Your task to perform on an android device: turn on the 12-hour format for clock Image 0: 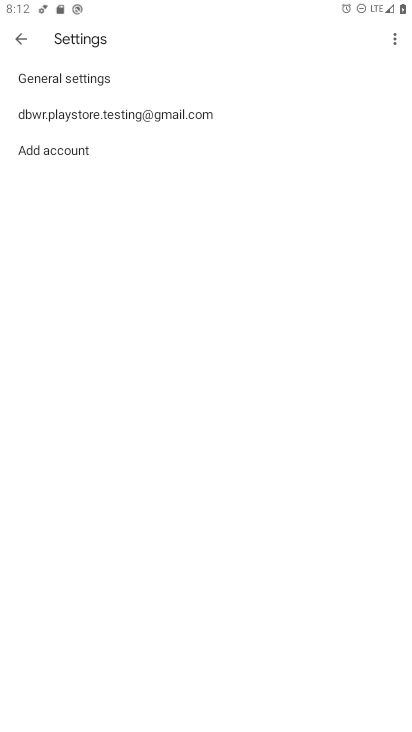
Step 0: press home button
Your task to perform on an android device: turn on the 12-hour format for clock Image 1: 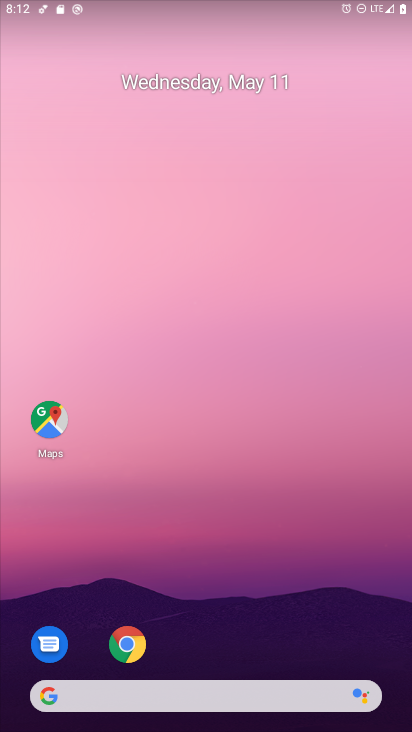
Step 1: drag from (178, 543) to (147, 74)
Your task to perform on an android device: turn on the 12-hour format for clock Image 2: 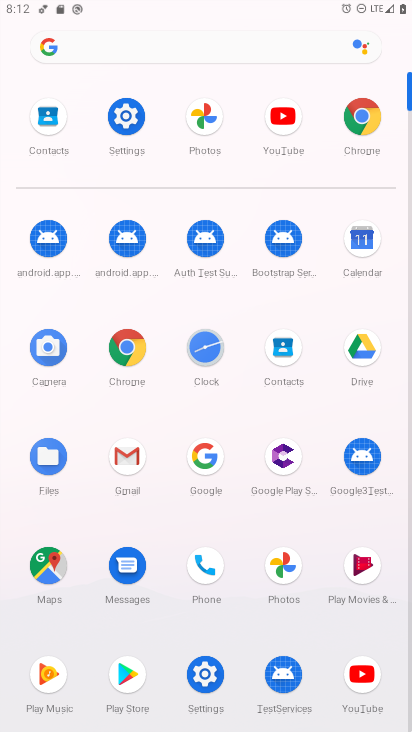
Step 2: click (209, 351)
Your task to perform on an android device: turn on the 12-hour format for clock Image 3: 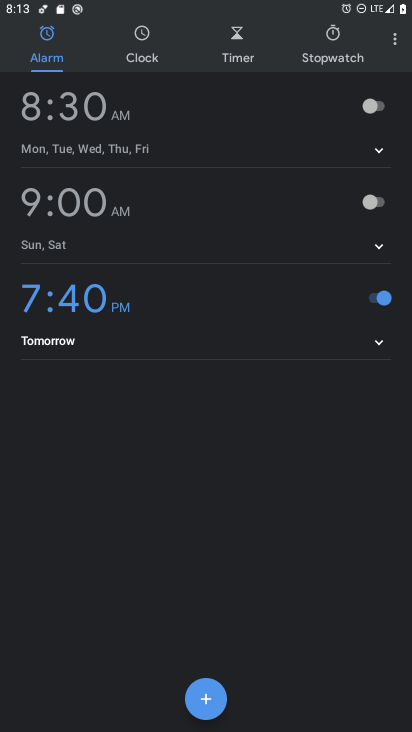
Step 3: click (393, 38)
Your task to perform on an android device: turn on the 12-hour format for clock Image 4: 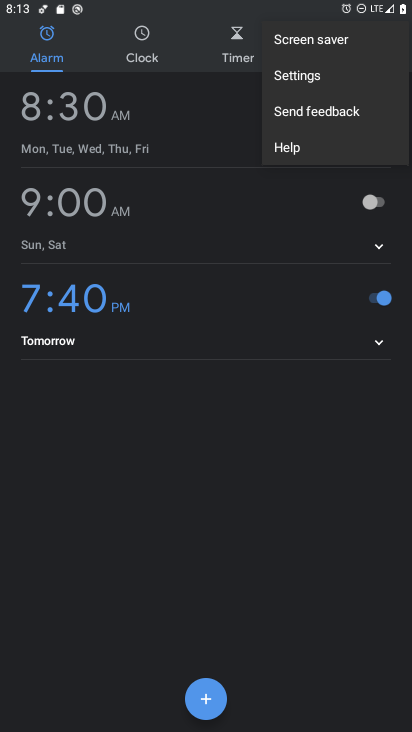
Step 4: click (312, 79)
Your task to perform on an android device: turn on the 12-hour format for clock Image 5: 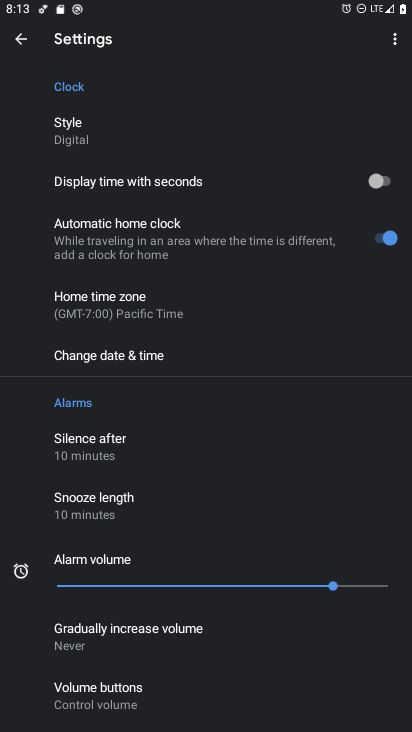
Step 5: drag from (233, 527) to (233, 436)
Your task to perform on an android device: turn on the 12-hour format for clock Image 6: 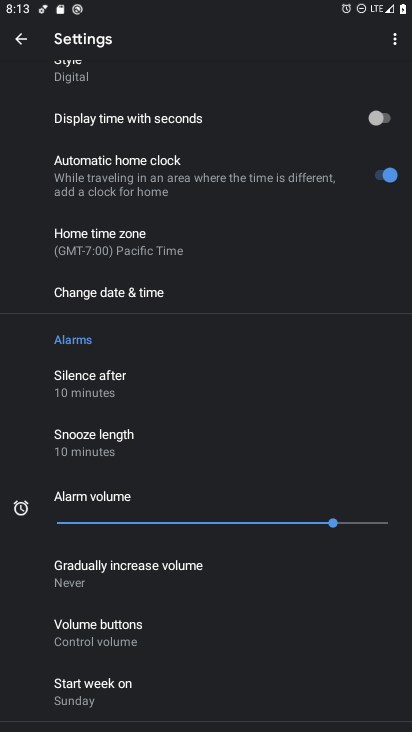
Step 6: click (133, 289)
Your task to perform on an android device: turn on the 12-hour format for clock Image 7: 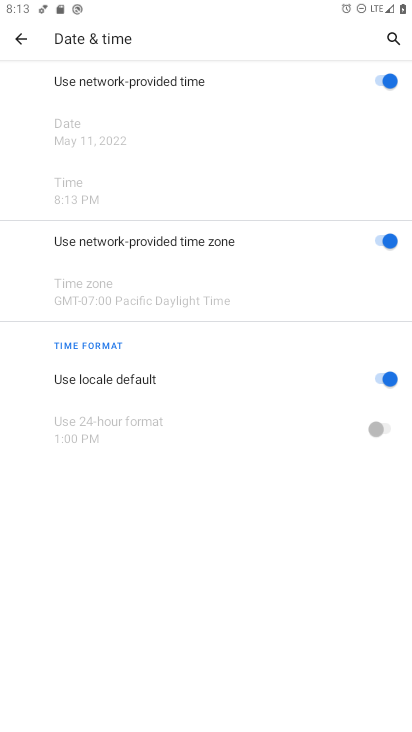
Step 7: task complete